Your task to perform on an android device: Look up the best rated video games on bestbuy.com Image 0: 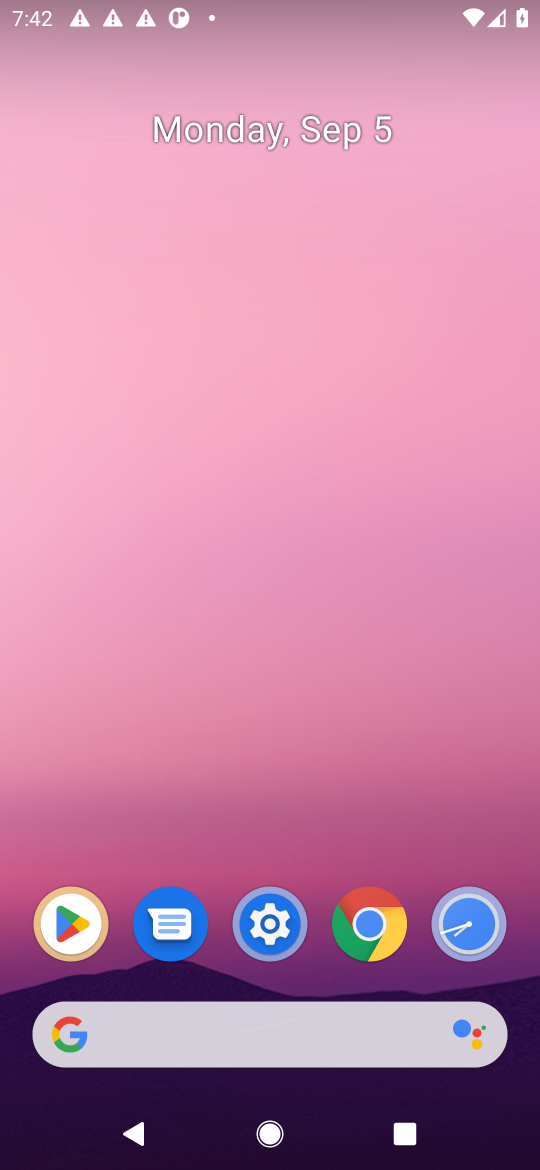
Step 0: click (385, 1041)
Your task to perform on an android device: Look up the best rated video games on bestbuy.com Image 1: 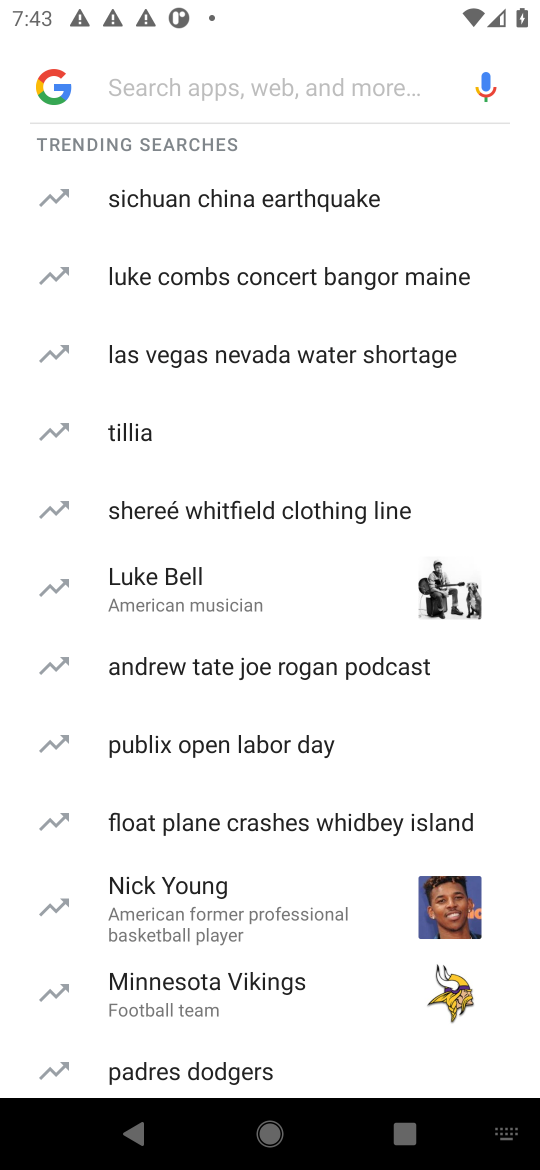
Step 1: type "bestbuy.com"
Your task to perform on an android device: Look up the best rated video games on bestbuy.com Image 2: 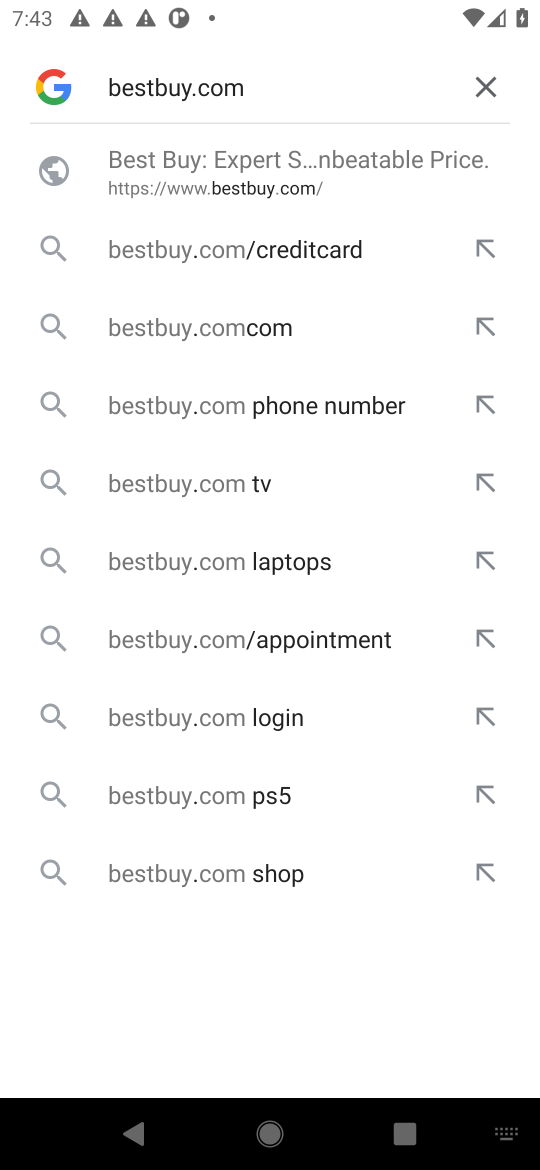
Step 2: press enter
Your task to perform on an android device: Look up the best rated video games on bestbuy.com Image 3: 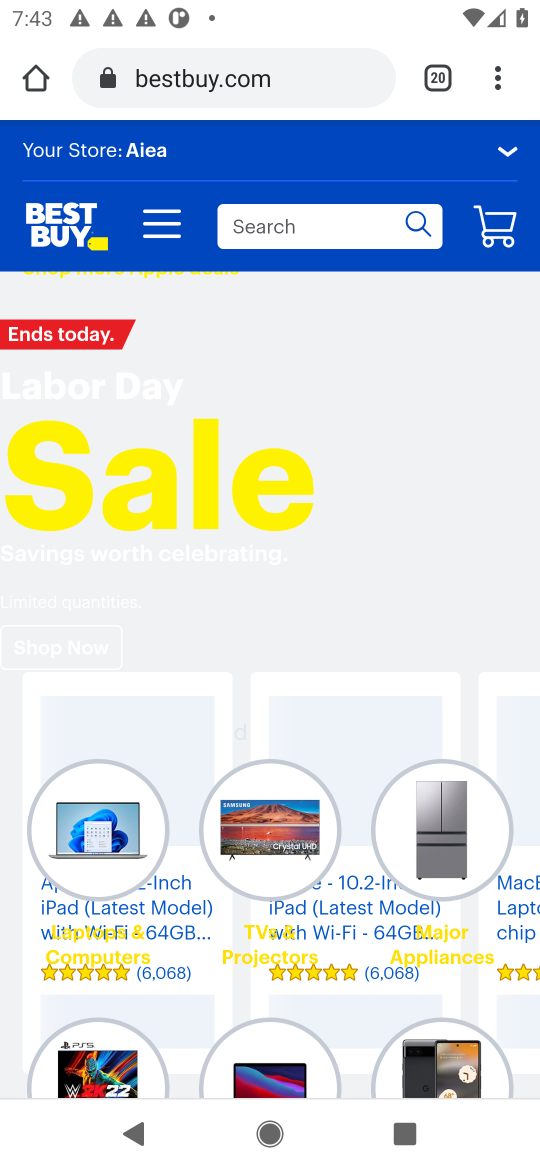
Step 3: click (318, 227)
Your task to perform on an android device: Look up the best rated video games on bestbuy.com Image 4: 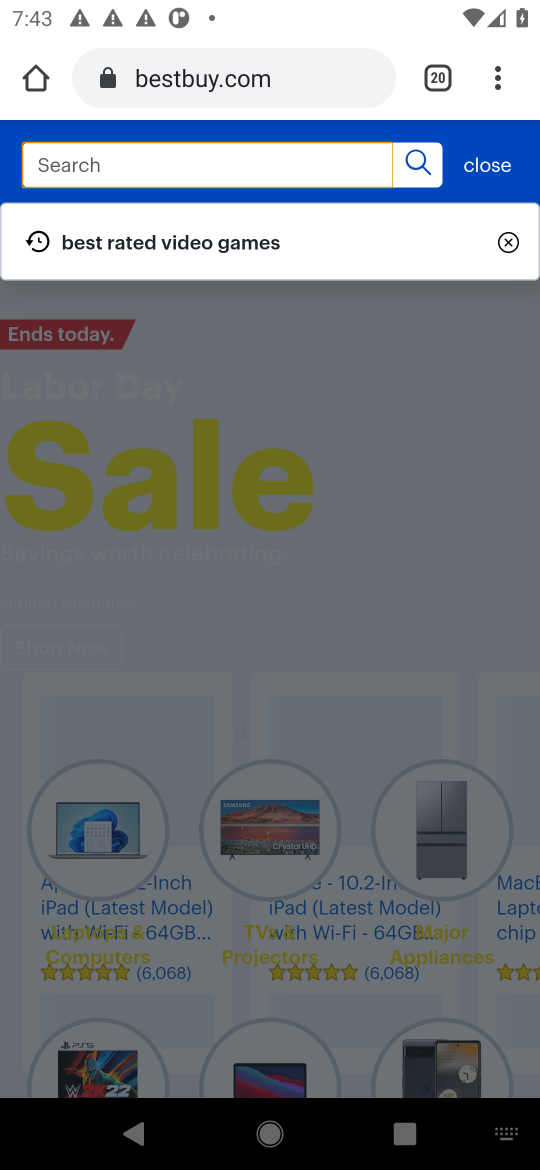
Step 4: click (256, 241)
Your task to perform on an android device: Look up the best rated video games on bestbuy.com Image 5: 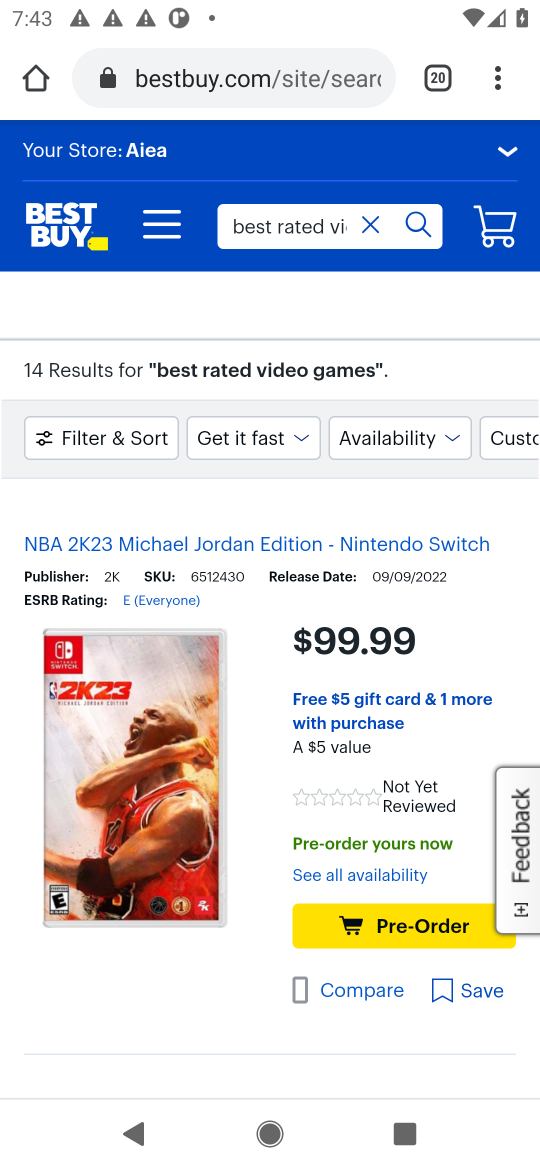
Step 5: task complete